Your task to perform on an android device: delete browsing data in the chrome app Image 0: 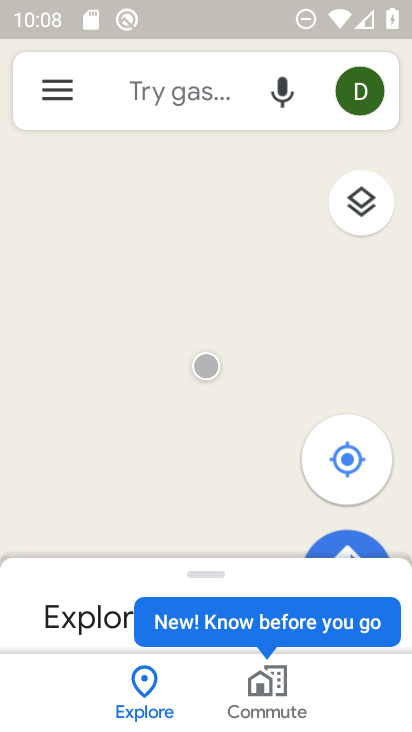
Step 0: press home button
Your task to perform on an android device: delete browsing data in the chrome app Image 1: 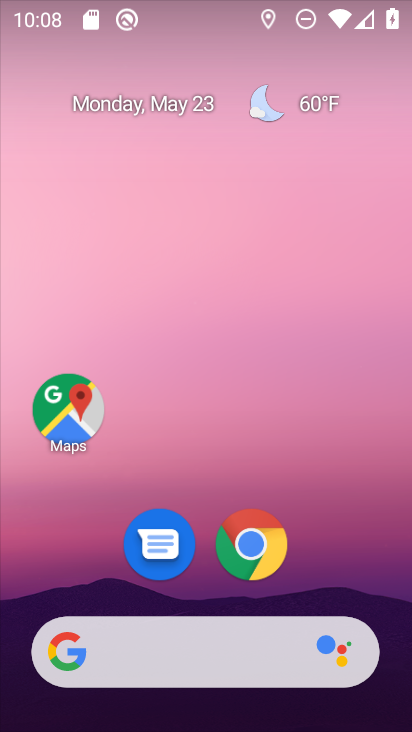
Step 1: click (271, 544)
Your task to perform on an android device: delete browsing data in the chrome app Image 2: 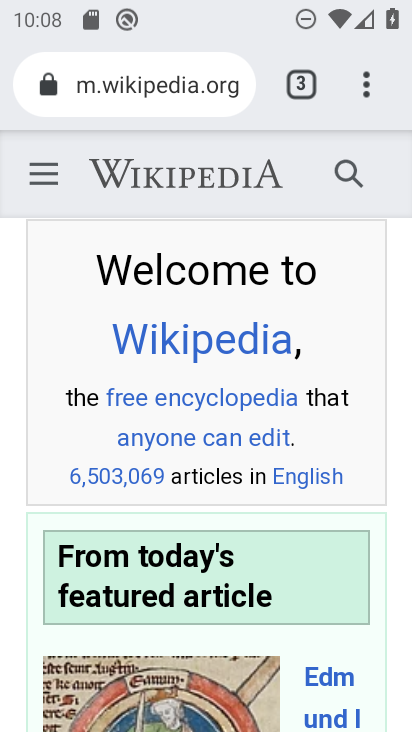
Step 2: click (368, 81)
Your task to perform on an android device: delete browsing data in the chrome app Image 3: 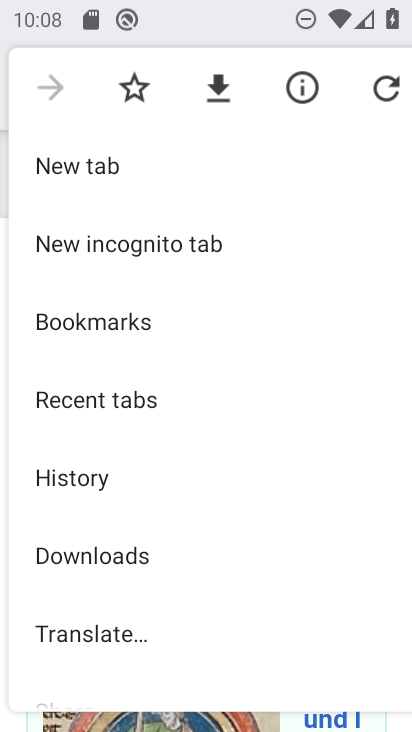
Step 3: click (90, 482)
Your task to perform on an android device: delete browsing data in the chrome app Image 4: 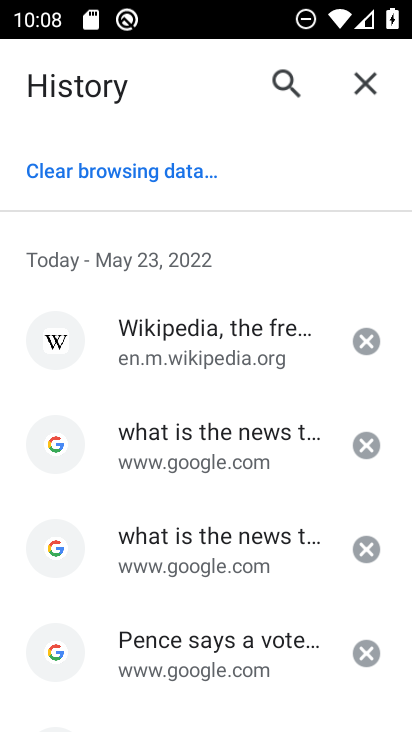
Step 4: click (134, 169)
Your task to perform on an android device: delete browsing data in the chrome app Image 5: 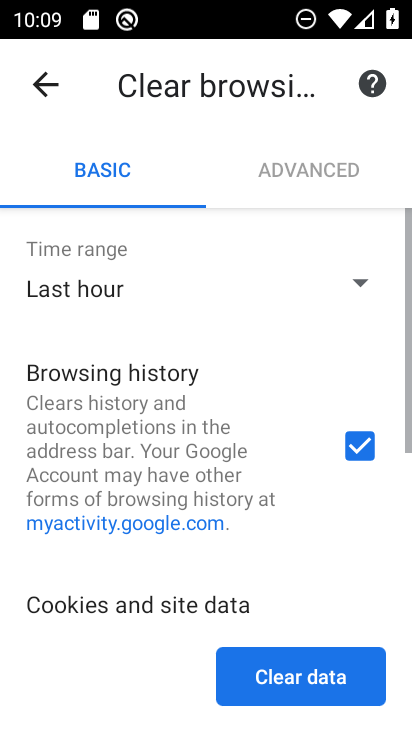
Step 5: click (323, 693)
Your task to perform on an android device: delete browsing data in the chrome app Image 6: 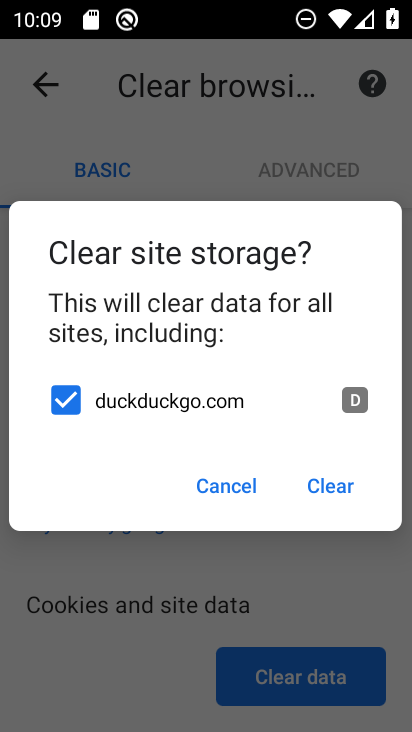
Step 6: click (333, 493)
Your task to perform on an android device: delete browsing data in the chrome app Image 7: 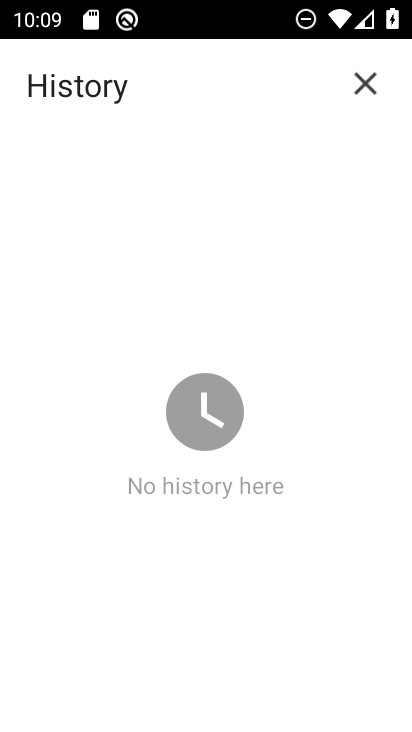
Step 7: task complete